Your task to perform on an android device: Open Chrome and go to settings Image 0: 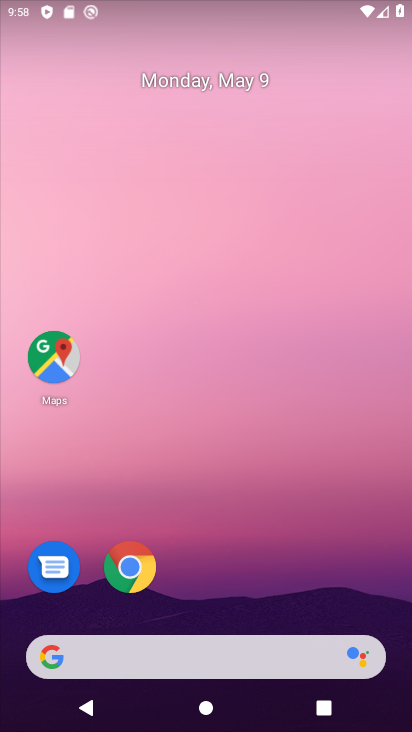
Step 0: click (140, 564)
Your task to perform on an android device: Open Chrome and go to settings Image 1: 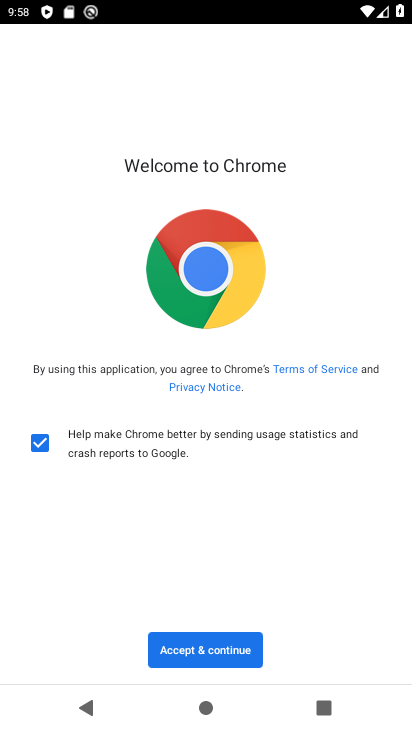
Step 1: click (187, 649)
Your task to perform on an android device: Open Chrome and go to settings Image 2: 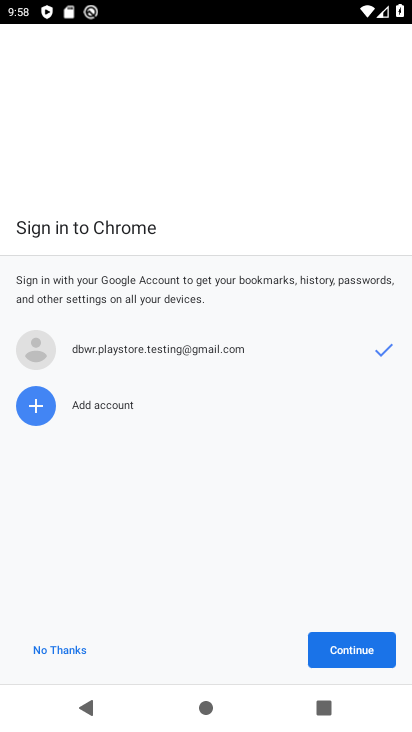
Step 2: click (323, 643)
Your task to perform on an android device: Open Chrome and go to settings Image 3: 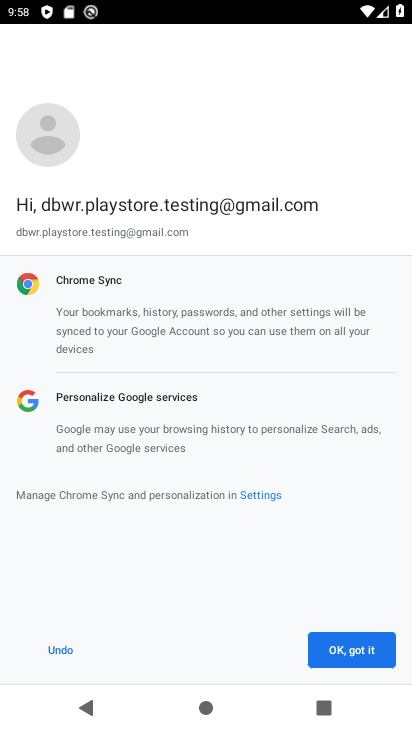
Step 3: click (328, 649)
Your task to perform on an android device: Open Chrome and go to settings Image 4: 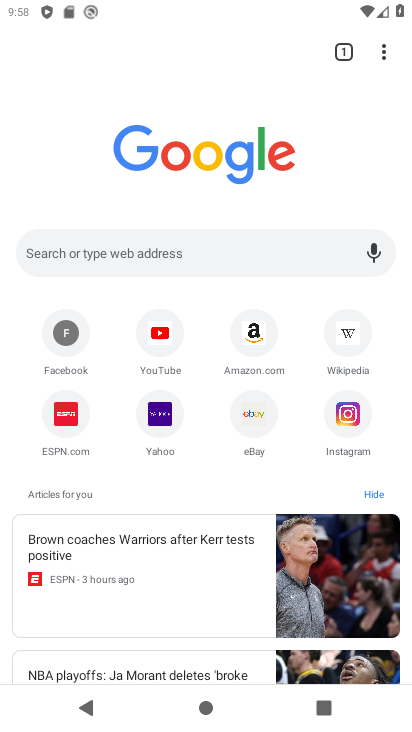
Step 4: click (384, 53)
Your task to perform on an android device: Open Chrome and go to settings Image 5: 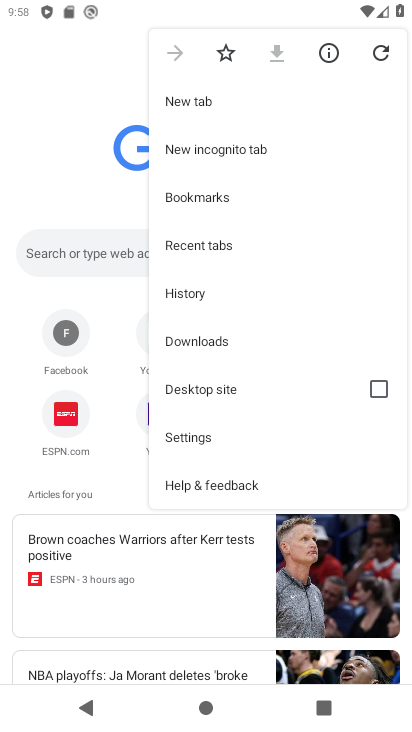
Step 5: click (213, 431)
Your task to perform on an android device: Open Chrome and go to settings Image 6: 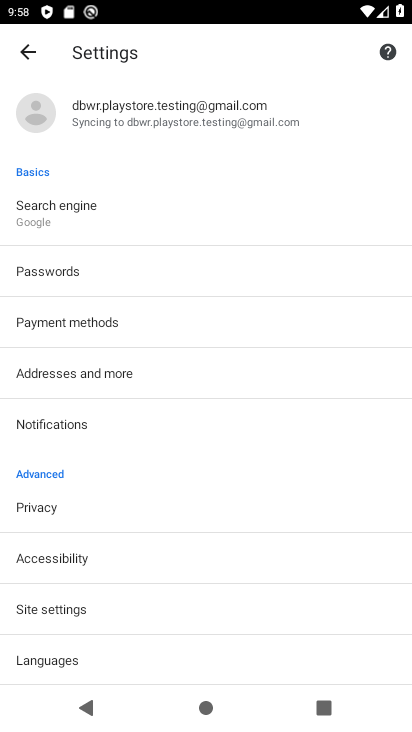
Step 6: task complete